Your task to perform on an android device: Do I have any events this weekend? Image 0: 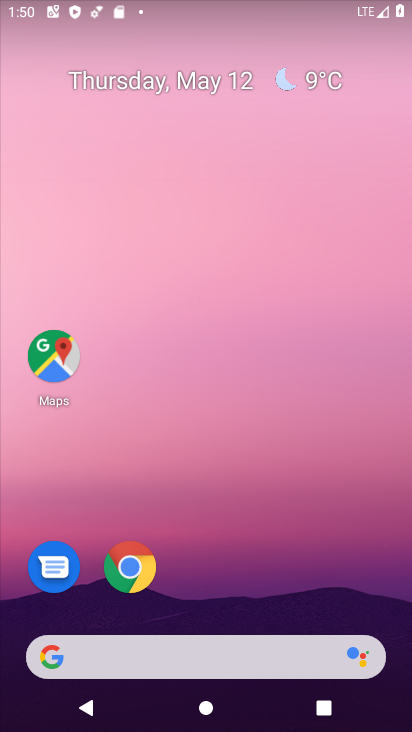
Step 0: drag from (274, 566) to (254, 115)
Your task to perform on an android device: Do I have any events this weekend? Image 1: 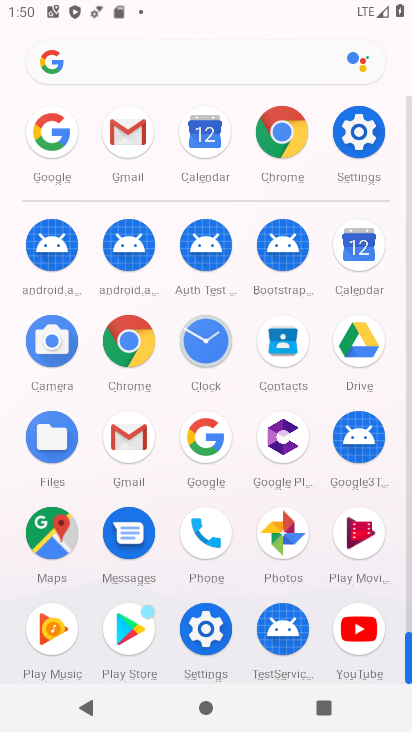
Step 1: click (368, 268)
Your task to perform on an android device: Do I have any events this weekend? Image 2: 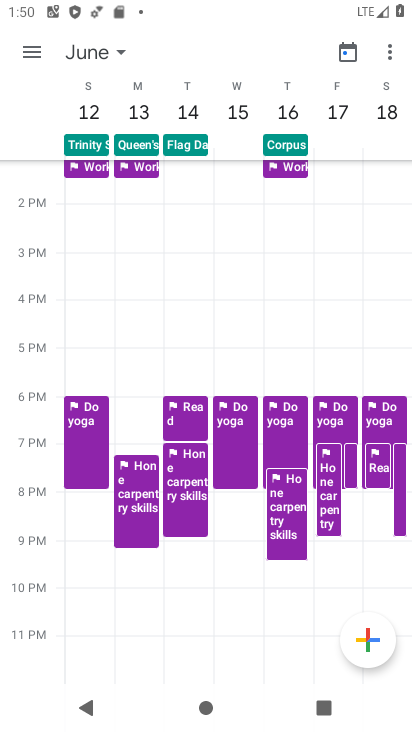
Step 2: task complete